Your task to perform on an android device: Open calendar and show me the third week of next month Image 0: 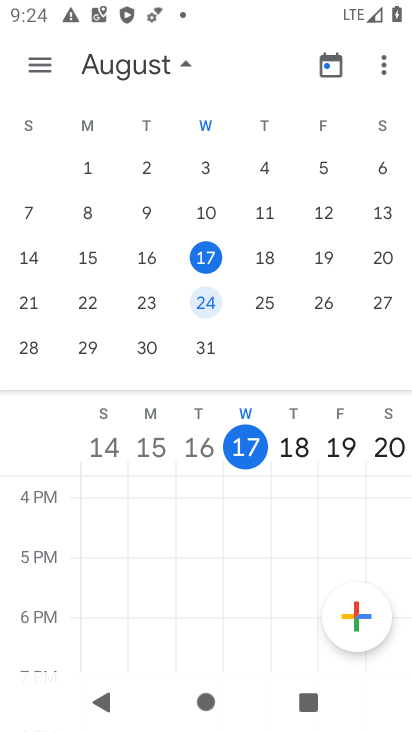
Step 0: drag from (353, 339) to (68, 300)
Your task to perform on an android device: Open calendar and show me the third week of next month Image 1: 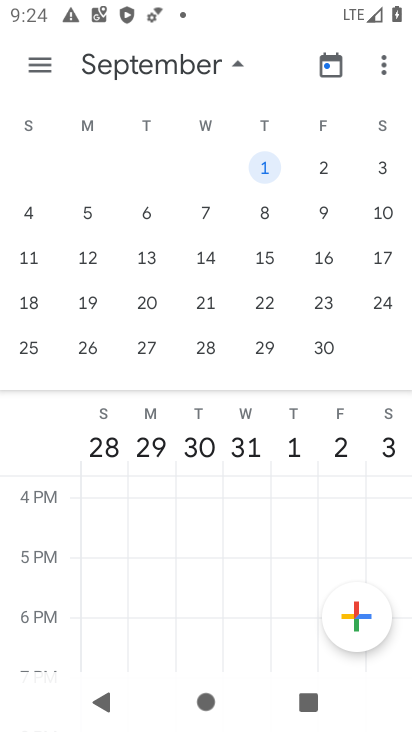
Step 1: click (268, 250)
Your task to perform on an android device: Open calendar and show me the third week of next month Image 2: 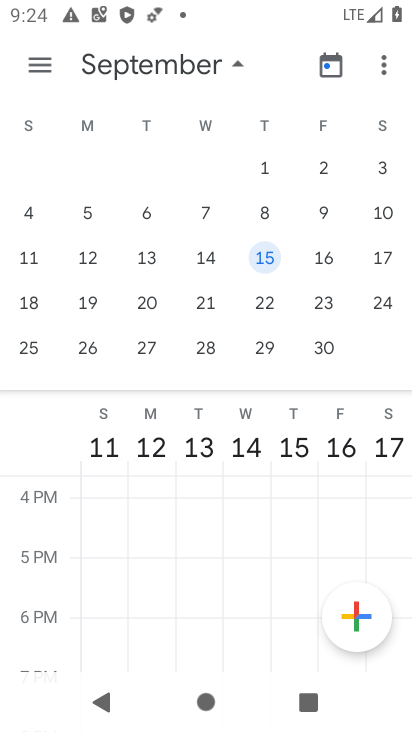
Step 2: task complete